Your task to perform on an android device: change the clock display to analog Image 0: 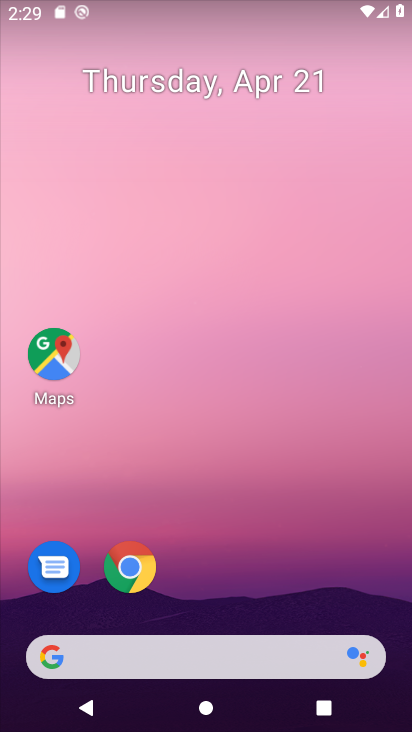
Step 0: drag from (278, 398) to (232, 25)
Your task to perform on an android device: change the clock display to analog Image 1: 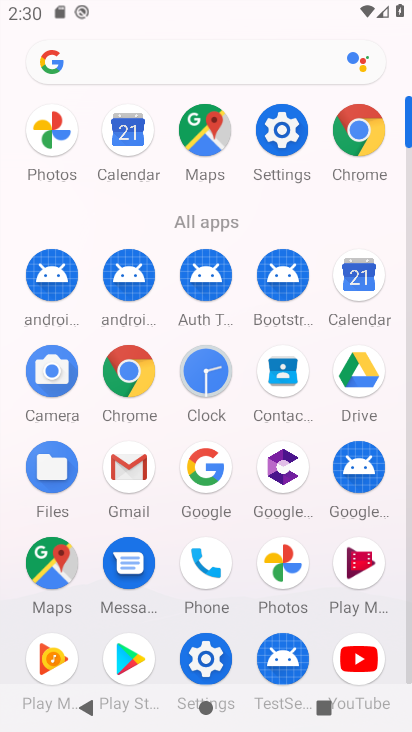
Step 1: drag from (6, 565) to (4, 348)
Your task to perform on an android device: change the clock display to analog Image 2: 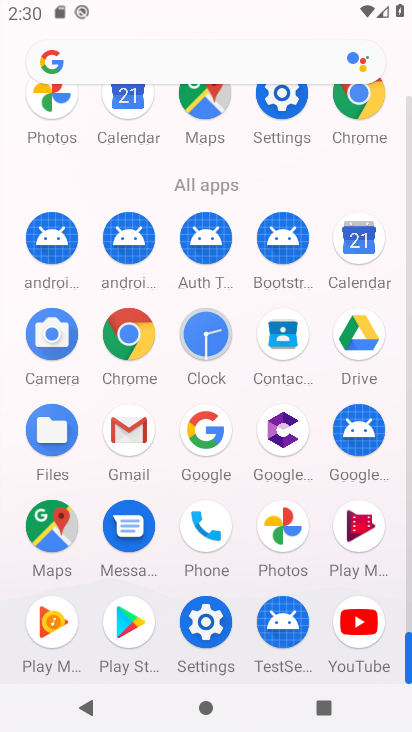
Step 2: click (201, 339)
Your task to perform on an android device: change the clock display to analog Image 3: 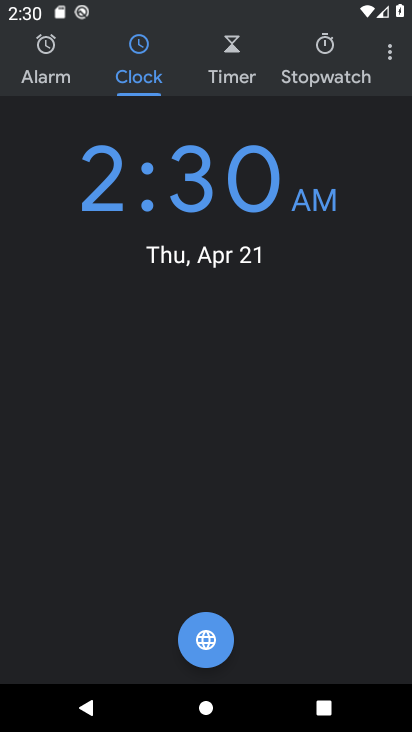
Step 3: click (386, 52)
Your task to perform on an android device: change the clock display to analog Image 4: 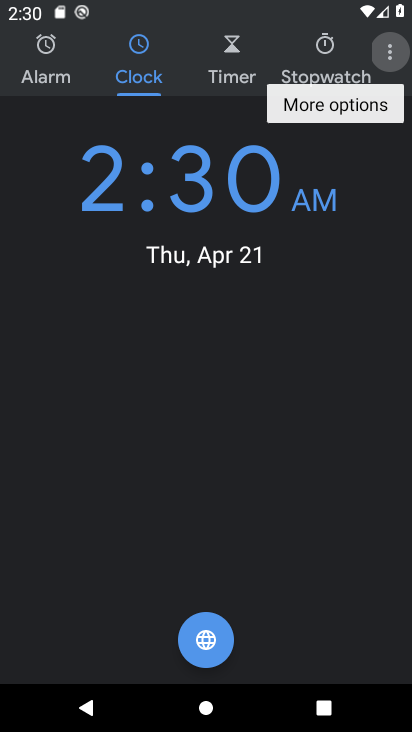
Step 4: click (388, 47)
Your task to perform on an android device: change the clock display to analog Image 5: 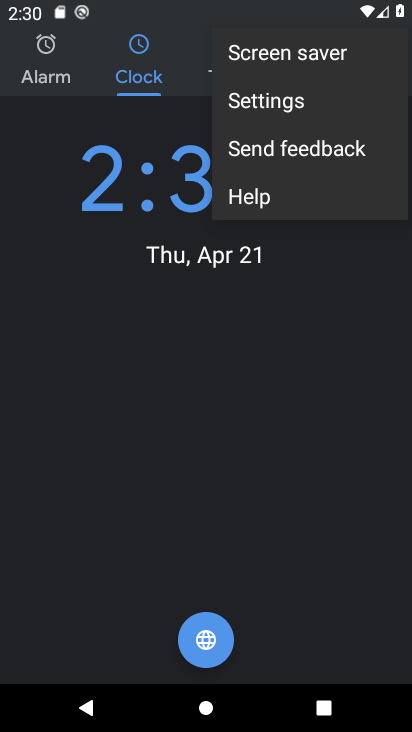
Step 5: click (312, 95)
Your task to perform on an android device: change the clock display to analog Image 6: 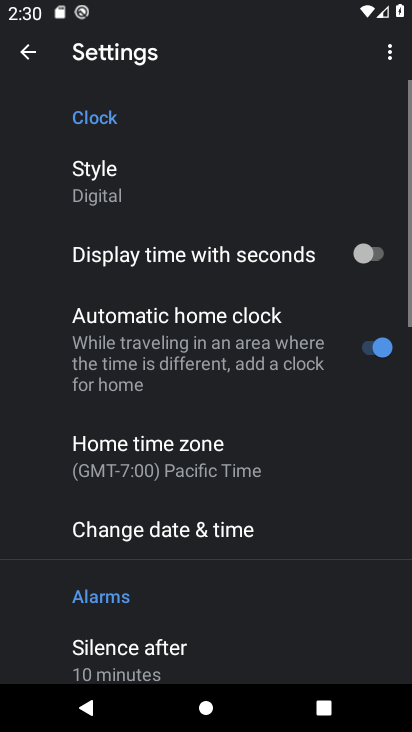
Step 6: click (176, 171)
Your task to perform on an android device: change the clock display to analog Image 7: 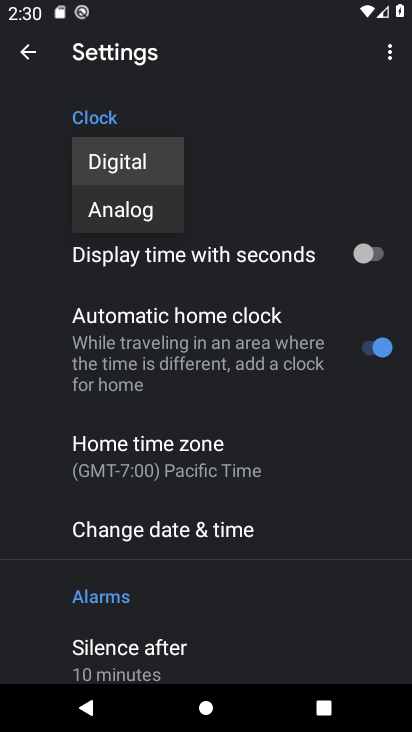
Step 7: click (139, 219)
Your task to perform on an android device: change the clock display to analog Image 8: 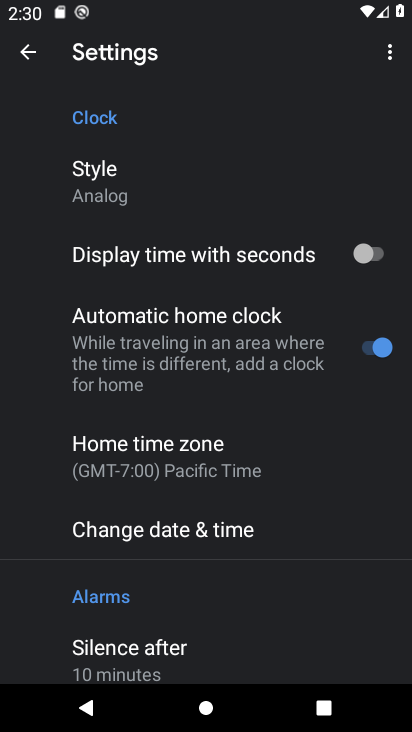
Step 8: task complete